Your task to perform on an android device: change timer sound Image 0: 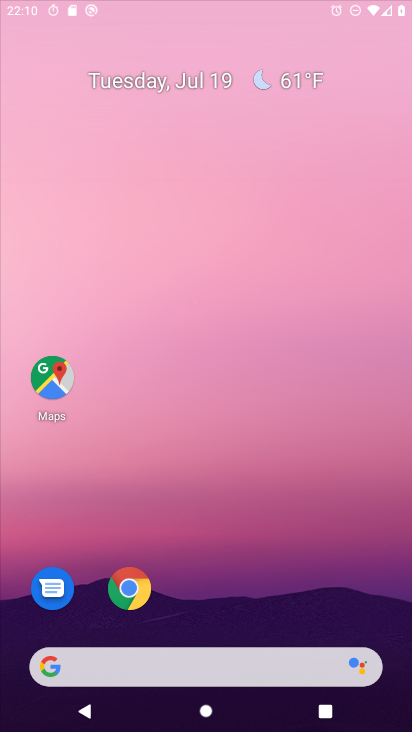
Step 0: press home button
Your task to perform on an android device: change timer sound Image 1: 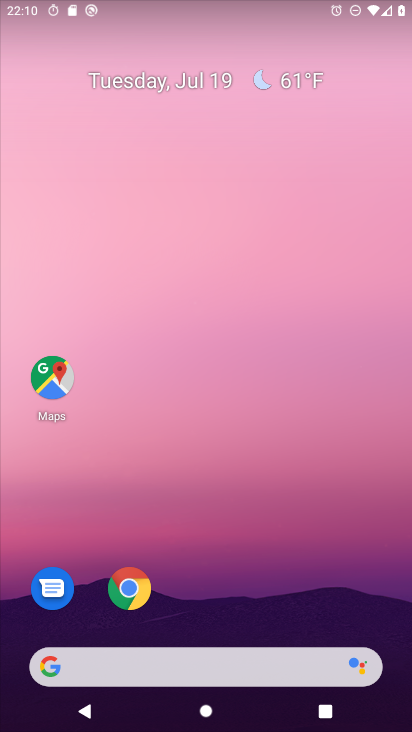
Step 1: drag from (219, 628) to (234, 40)
Your task to perform on an android device: change timer sound Image 2: 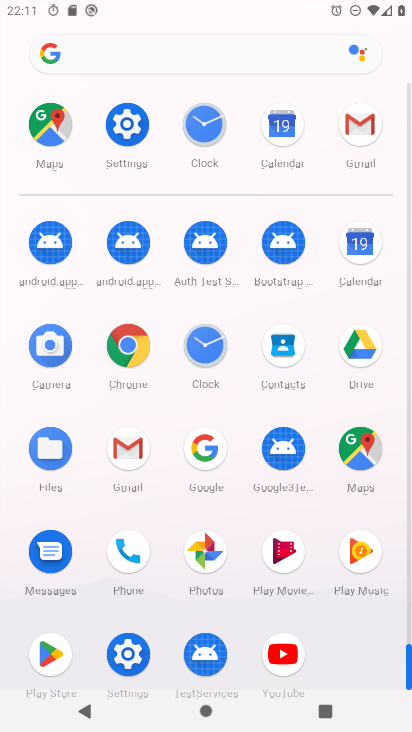
Step 2: click (208, 340)
Your task to perform on an android device: change timer sound Image 3: 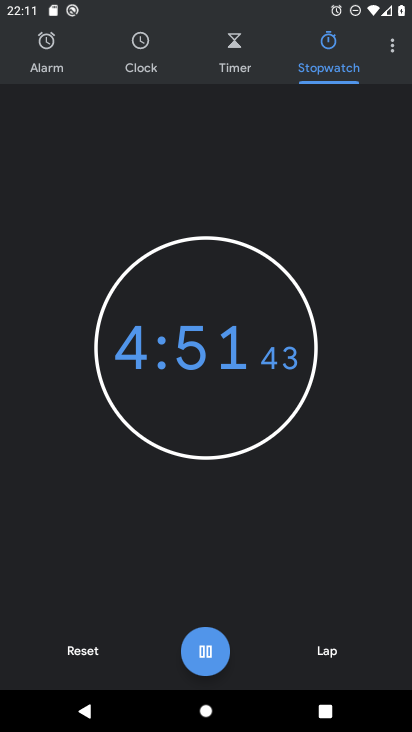
Step 3: click (74, 643)
Your task to perform on an android device: change timer sound Image 4: 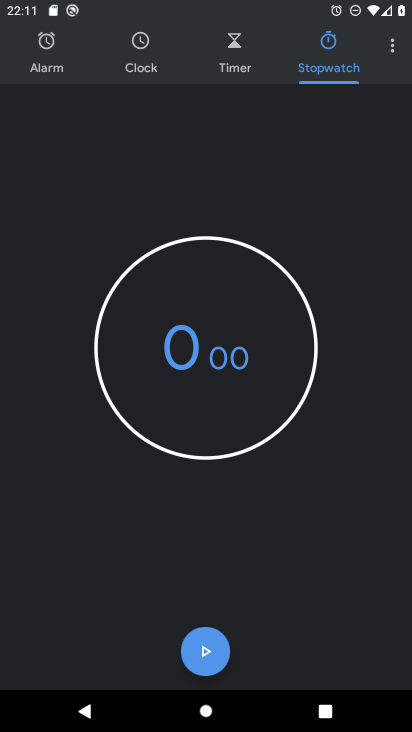
Step 4: click (394, 51)
Your task to perform on an android device: change timer sound Image 5: 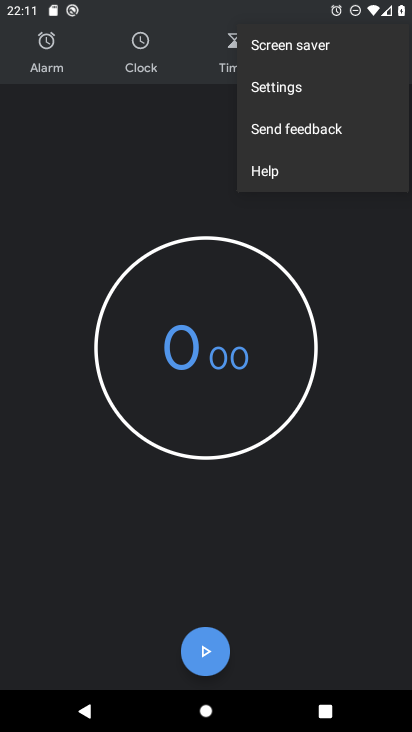
Step 5: click (314, 70)
Your task to perform on an android device: change timer sound Image 6: 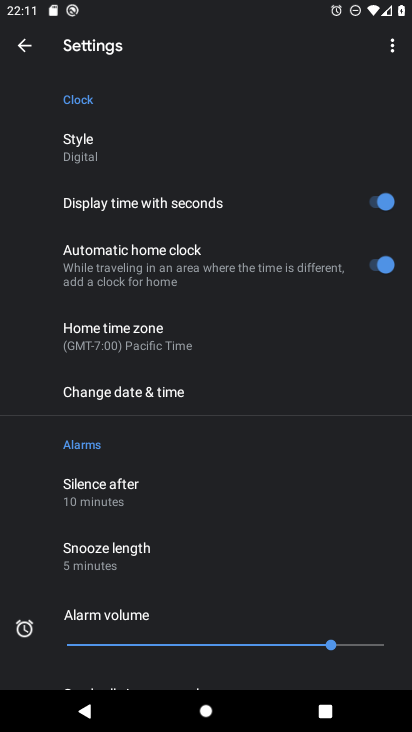
Step 6: drag from (194, 582) to (240, 108)
Your task to perform on an android device: change timer sound Image 7: 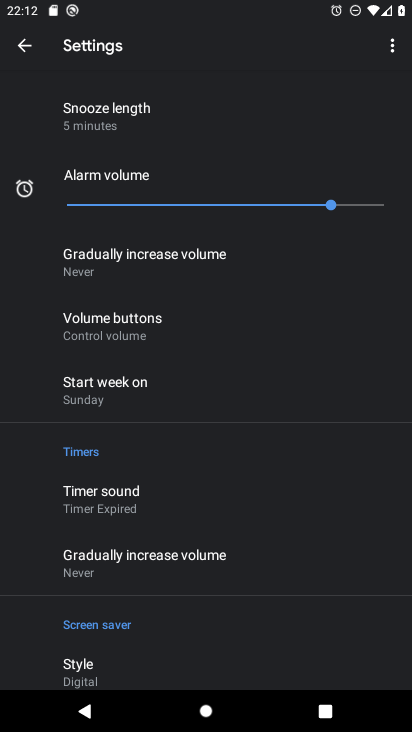
Step 7: click (154, 496)
Your task to perform on an android device: change timer sound Image 8: 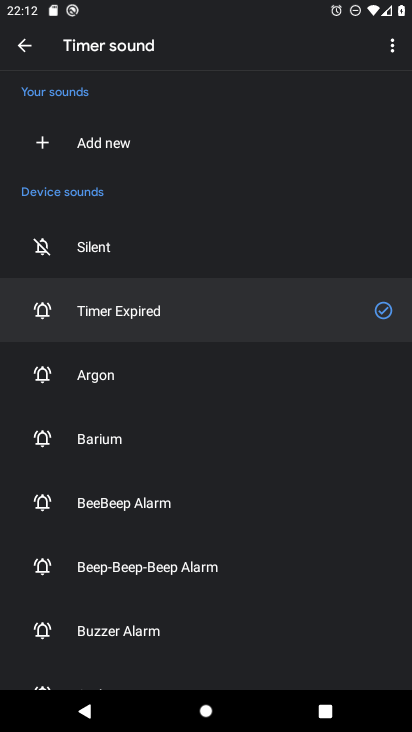
Step 8: click (163, 633)
Your task to perform on an android device: change timer sound Image 9: 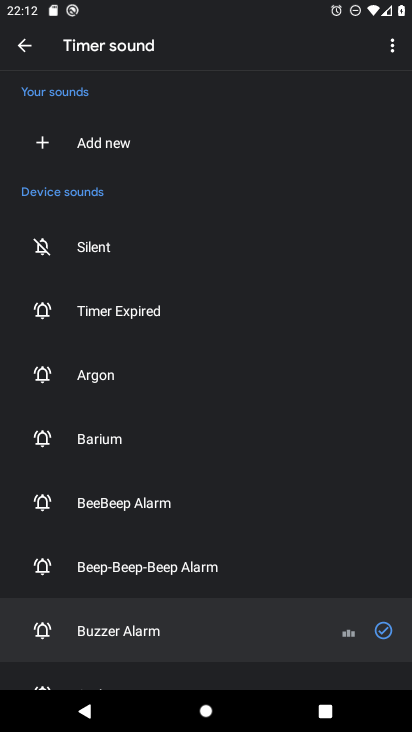
Step 9: task complete